Your task to perform on an android device: toggle airplane mode Image 0: 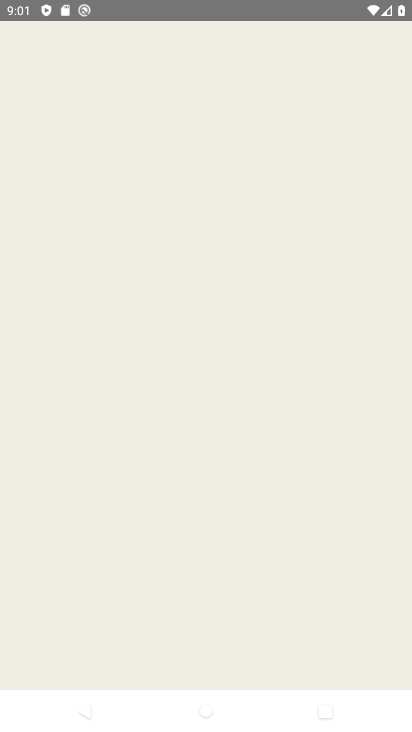
Step 0: click (233, 12)
Your task to perform on an android device: toggle airplane mode Image 1: 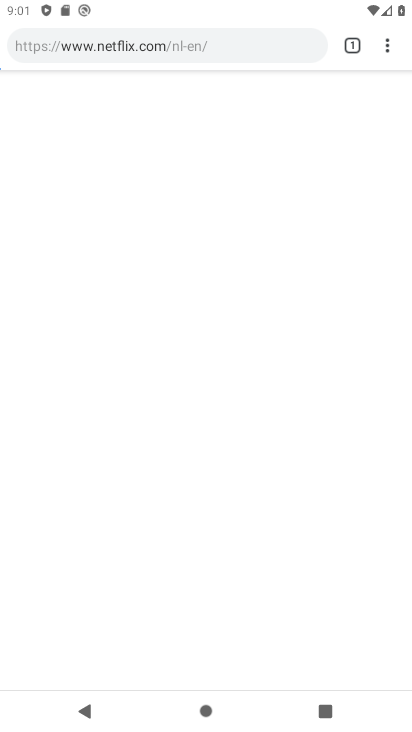
Step 1: press home button
Your task to perform on an android device: toggle airplane mode Image 2: 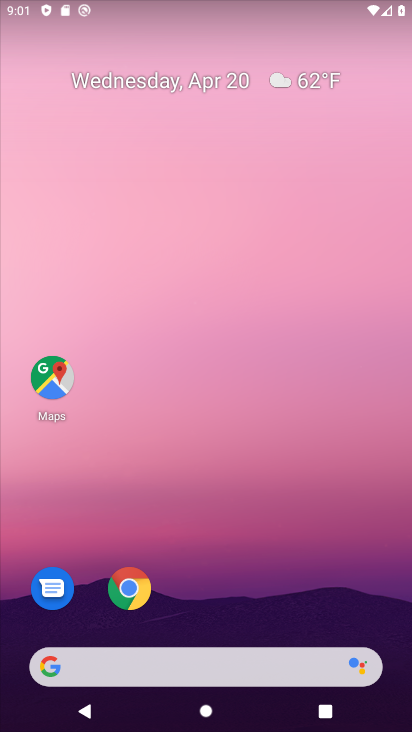
Step 2: drag from (213, 625) to (249, 20)
Your task to perform on an android device: toggle airplane mode Image 3: 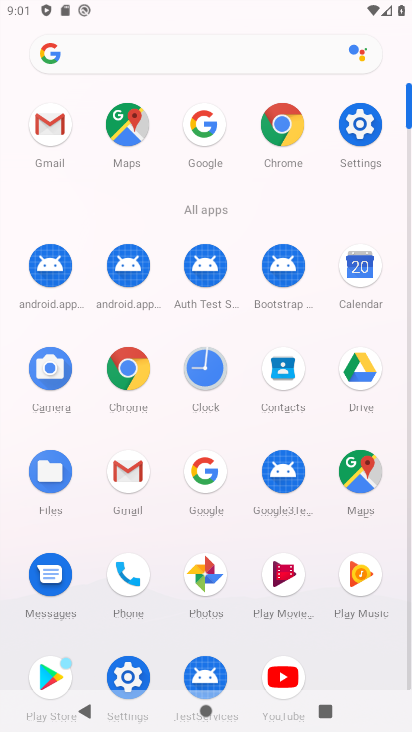
Step 3: drag from (204, 7) to (235, 638)
Your task to perform on an android device: toggle airplane mode Image 4: 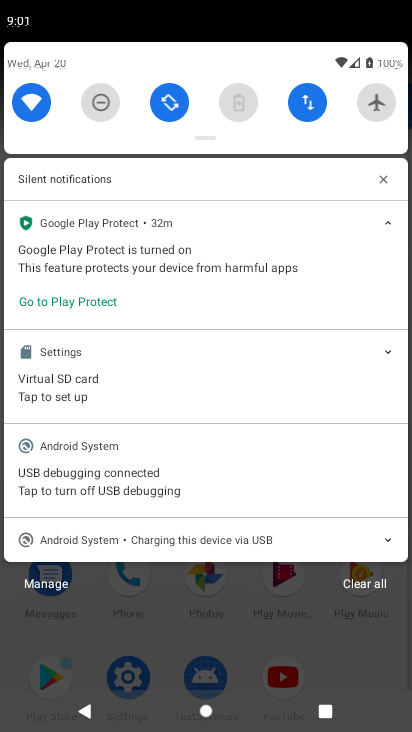
Step 4: click (376, 104)
Your task to perform on an android device: toggle airplane mode Image 5: 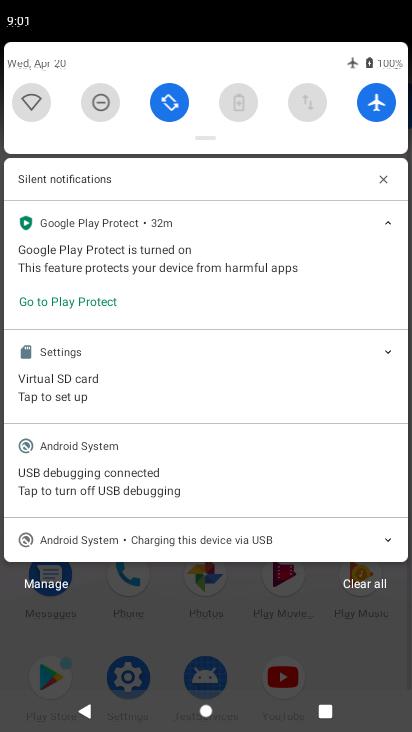
Step 5: click (362, 584)
Your task to perform on an android device: toggle airplane mode Image 6: 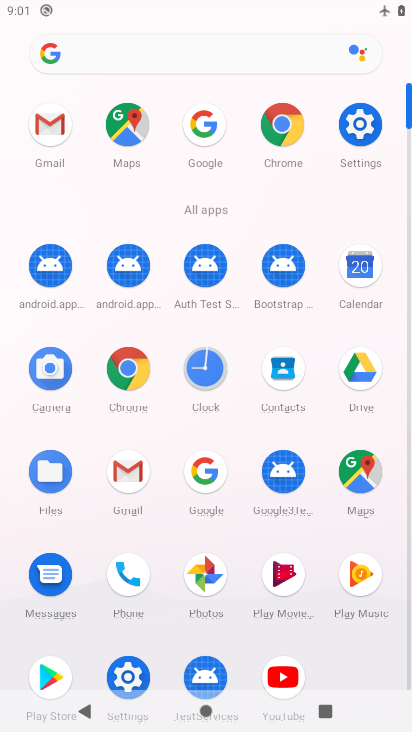
Step 6: task complete